Your task to perform on an android device: open device folders in google photos Image 0: 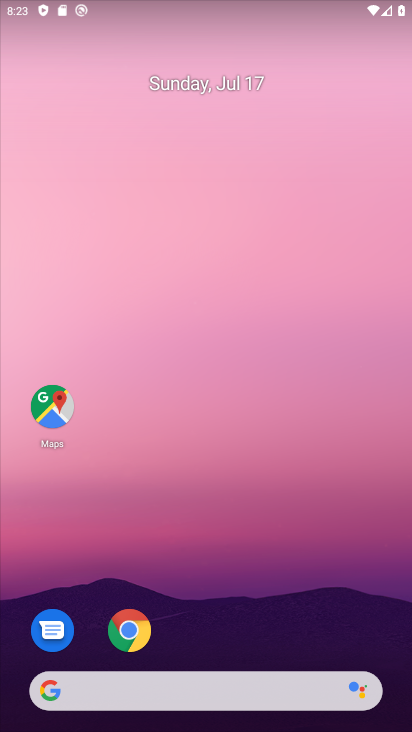
Step 0: drag from (247, 614) to (174, 96)
Your task to perform on an android device: open device folders in google photos Image 1: 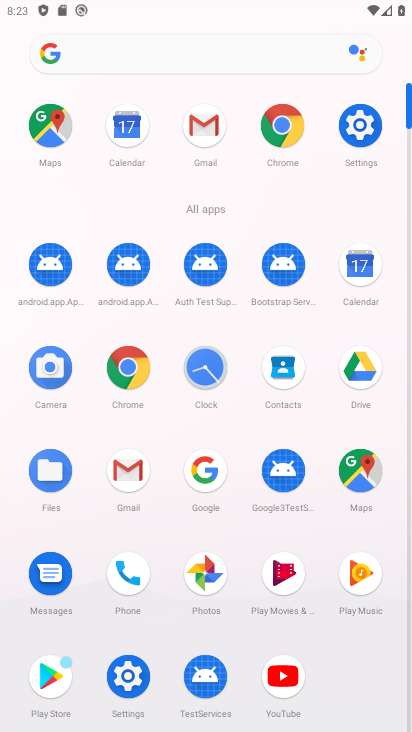
Step 1: click (208, 589)
Your task to perform on an android device: open device folders in google photos Image 2: 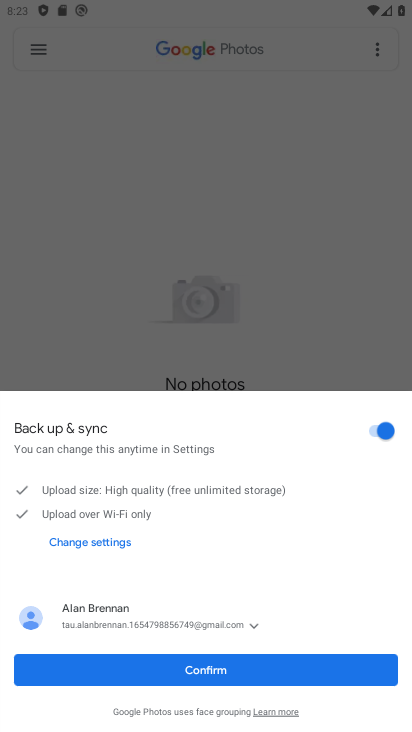
Step 2: click (173, 667)
Your task to perform on an android device: open device folders in google photos Image 3: 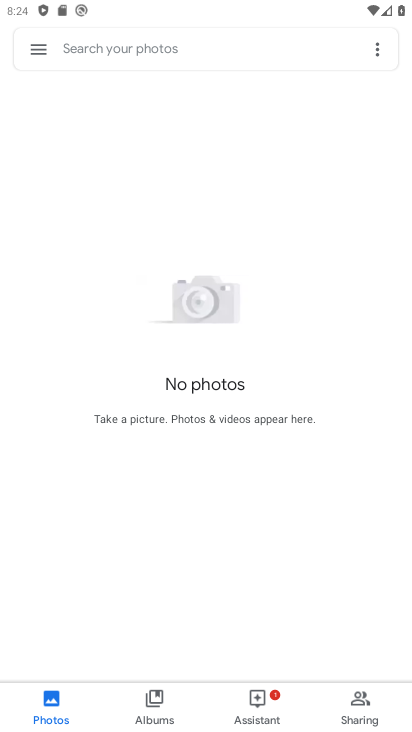
Step 3: click (35, 50)
Your task to perform on an android device: open device folders in google photos Image 4: 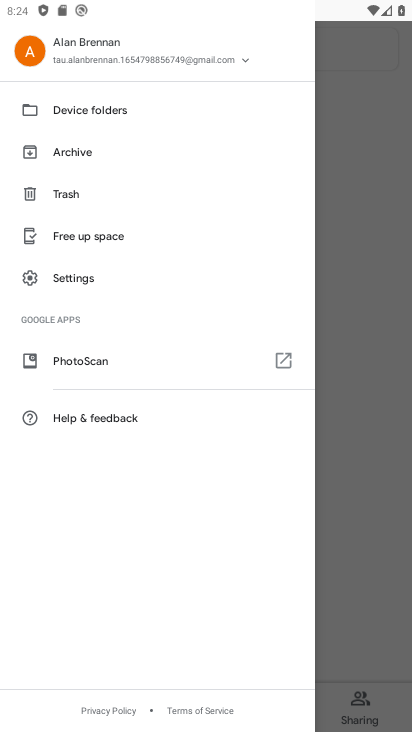
Step 4: click (77, 123)
Your task to perform on an android device: open device folders in google photos Image 5: 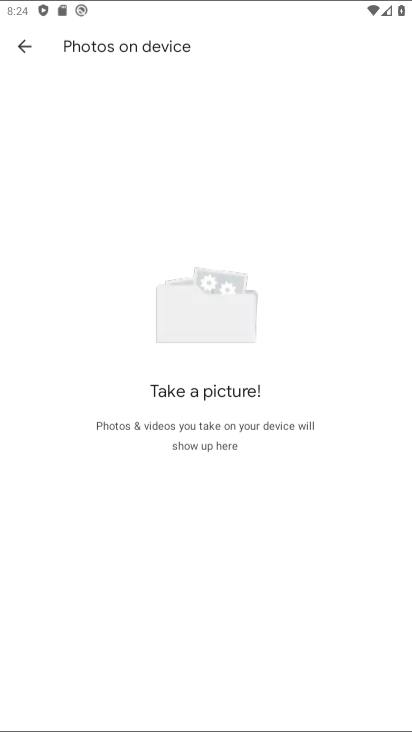
Step 5: task complete